Your task to perform on an android device: Go to CNN.com Image 0: 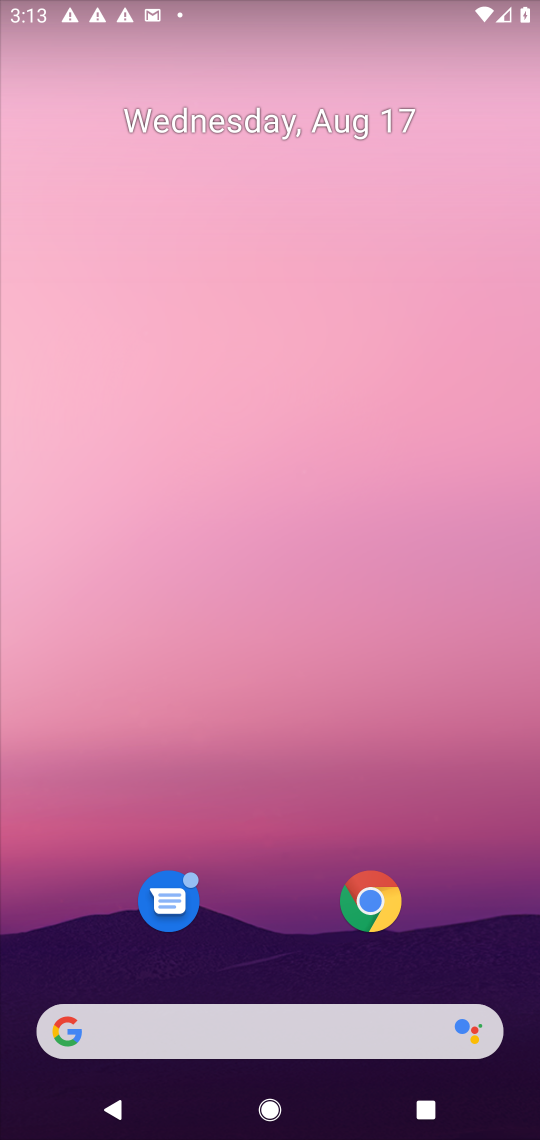
Step 0: drag from (167, 934) to (206, 380)
Your task to perform on an android device: Go to CNN.com Image 1: 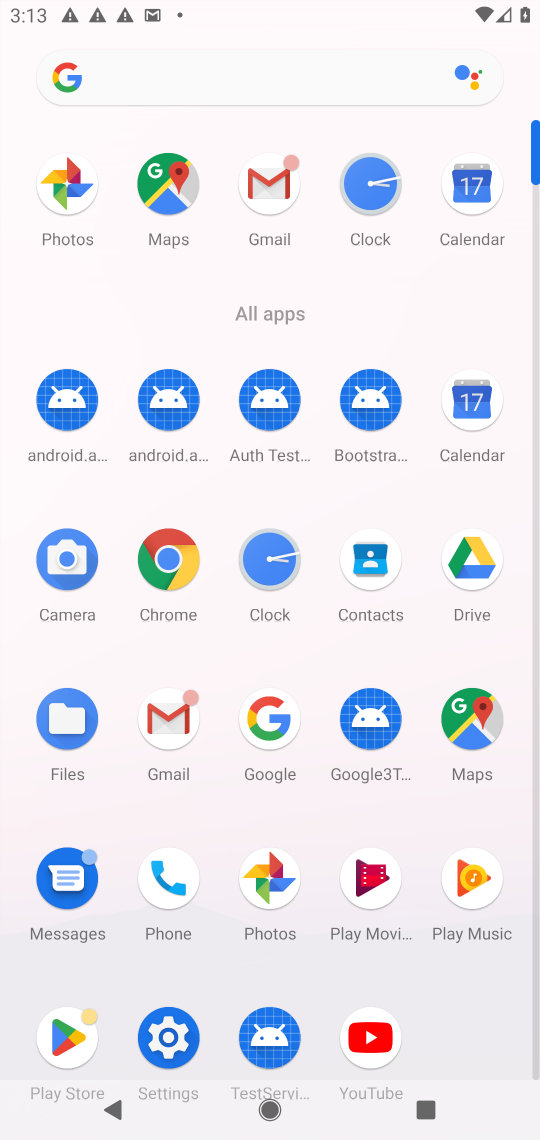
Step 1: click (164, 534)
Your task to perform on an android device: Go to CNN.com Image 2: 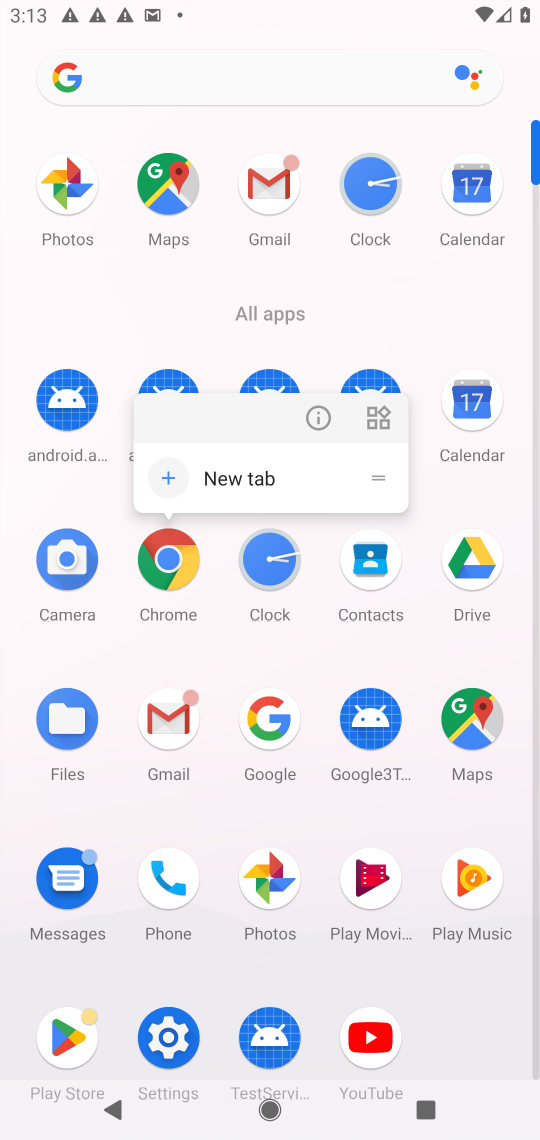
Step 2: click (167, 558)
Your task to perform on an android device: Go to CNN.com Image 3: 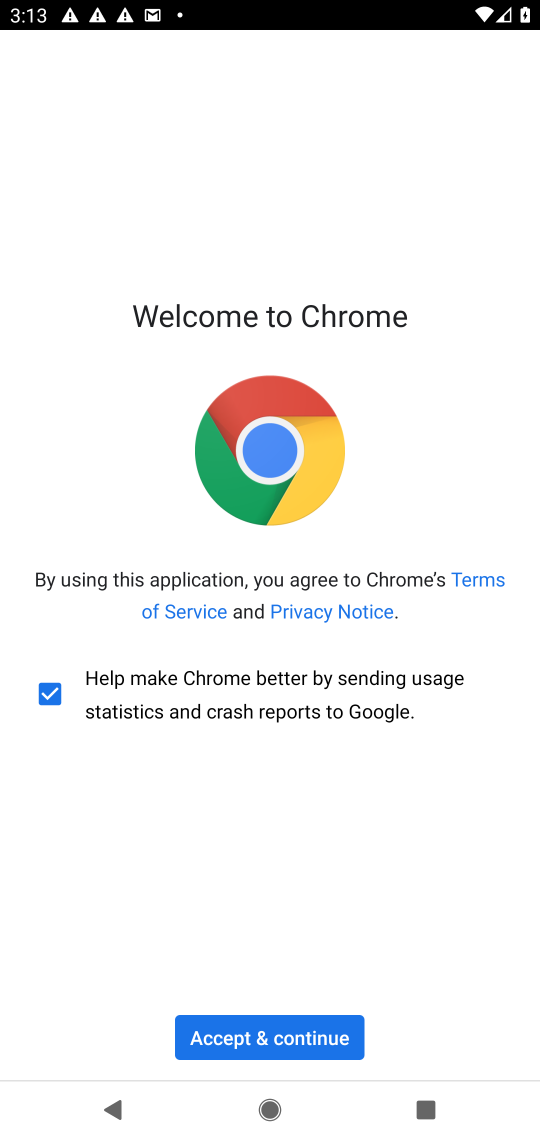
Step 3: click (268, 1047)
Your task to perform on an android device: Go to CNN.com Image 4: 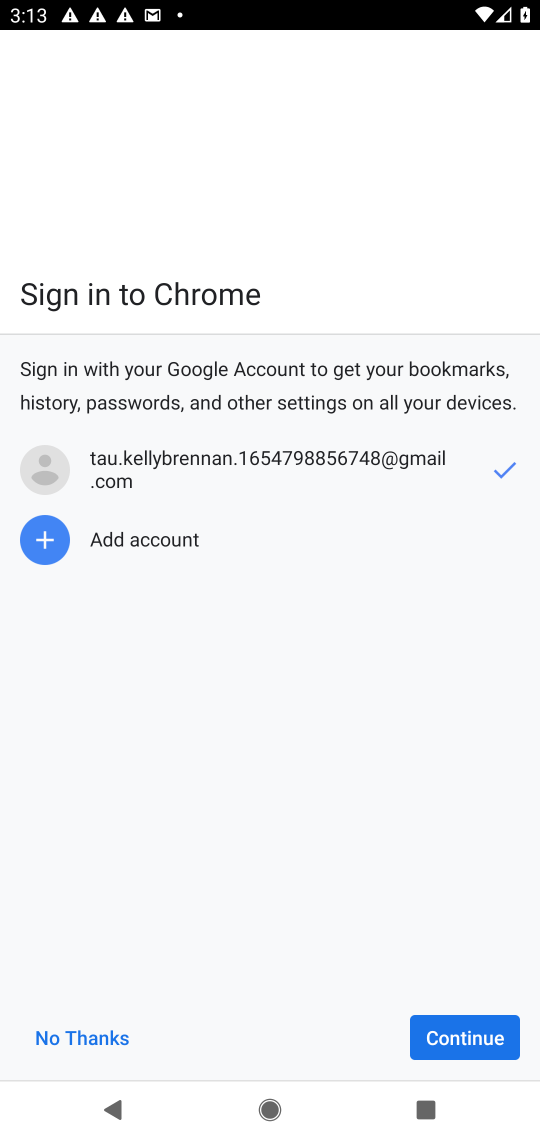
Step 4: click (451, 1022)
Your task to perform on an android device: Go to CNN.com Image 5: 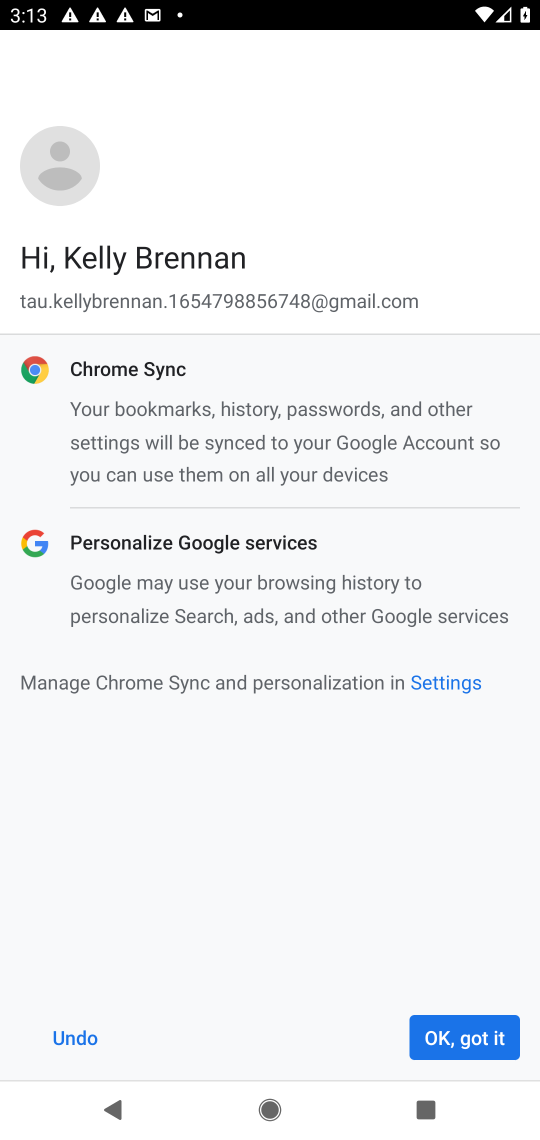
Step 5: click (502, 1030)
Your task to perform on an android device: Go to CNN.com Image 6: 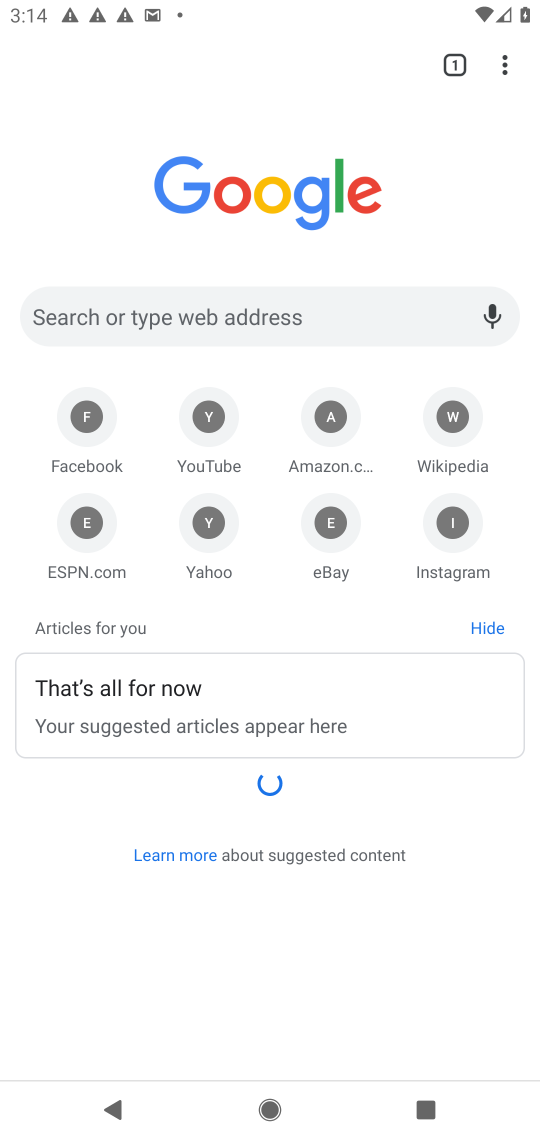
Step 6: click (237, 309)
Your task to perform on an android device: Go to CNN.com Image 7: 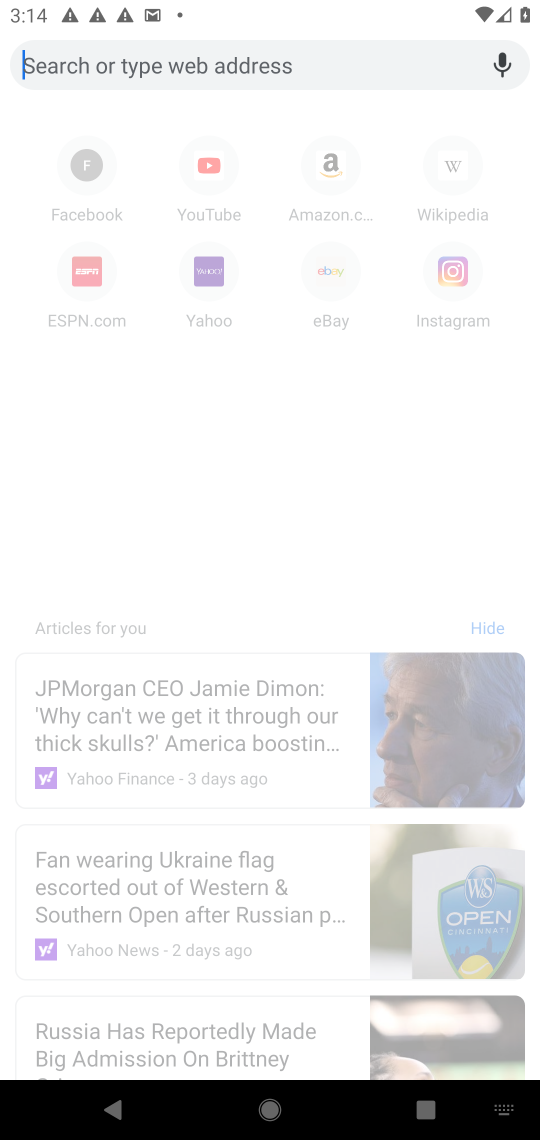
Step 7: type "CNN.com"
Your task to perform on an android device: Go to CNN.com Image 8: 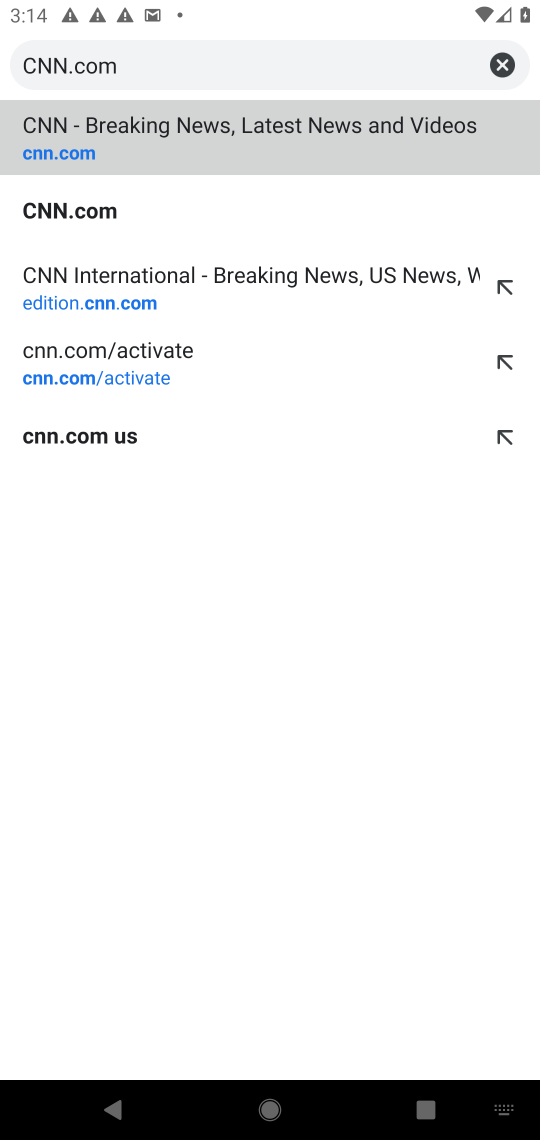
Step 8: click (124, 133)
Your task to perform on an android device: Go to CNN.com Image 9: 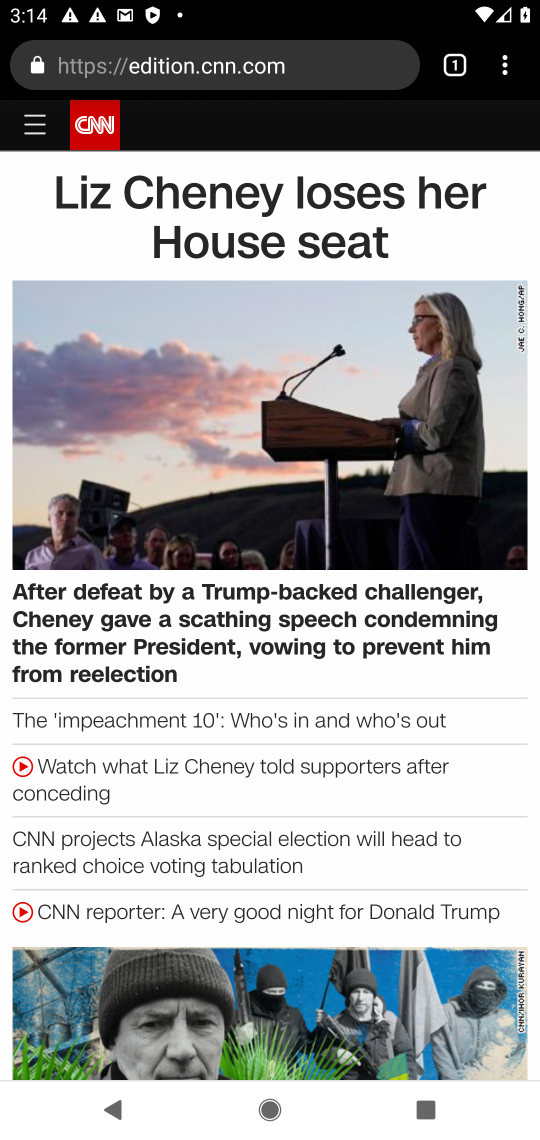
Step 9: task complete